Your task to perform on an android device: Open privacy settings Image 0: 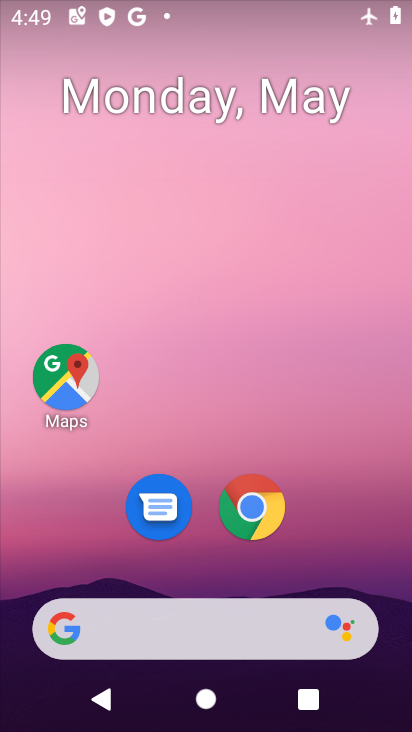
Step 0: drag from (368, 560) to (333, 69)
Your task to perform on an android device: Open privacy settings Image 1: 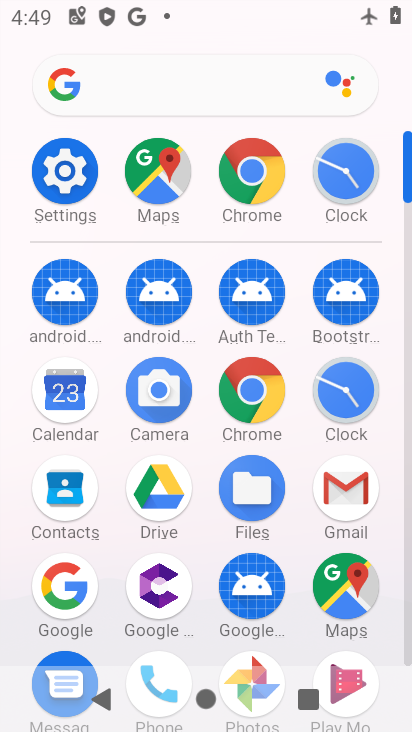
Step 1: click (63, 162)
Your task to perform on an android device: Open privacy settings Image 2: 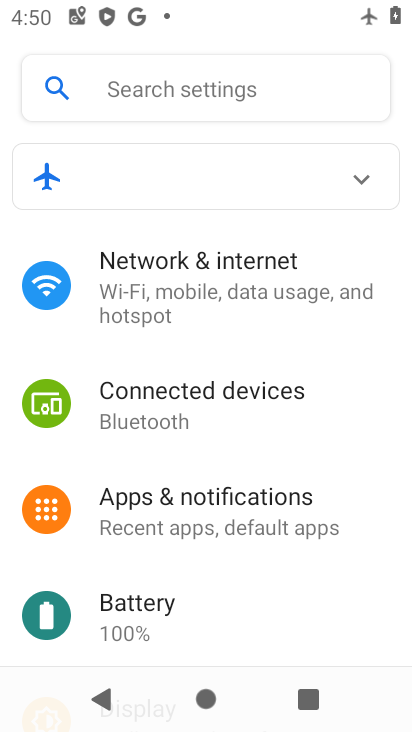
Step 2: drag from (252, 609) to (251, 164)
Your task to perform on an android device: Open privacy settings Image 3: 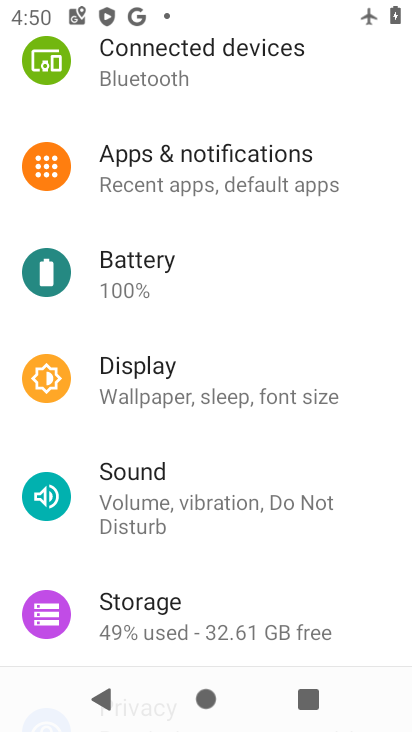
Step 3: drag from (209, 561) to (239, 137)
Your task to perform on an android device: Open privacy settings Image 4: 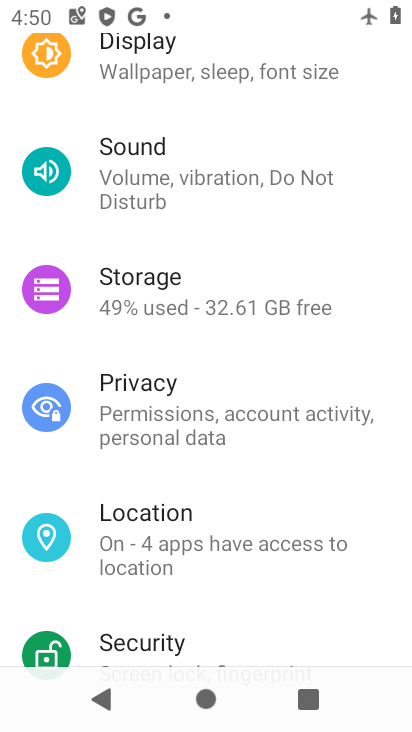
Step 4: click (155, 397)
Your task to perform on an android device: Open privacy settings Image 5: 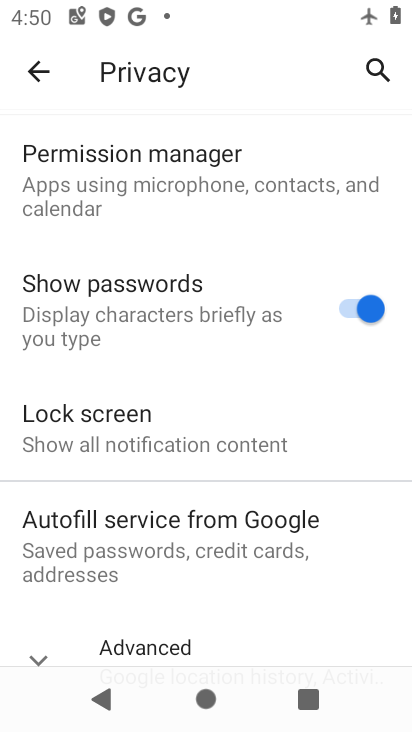
Step 5: task complete